Your task to perform on an android device: turn smart compose on in the gmail app Image 0: 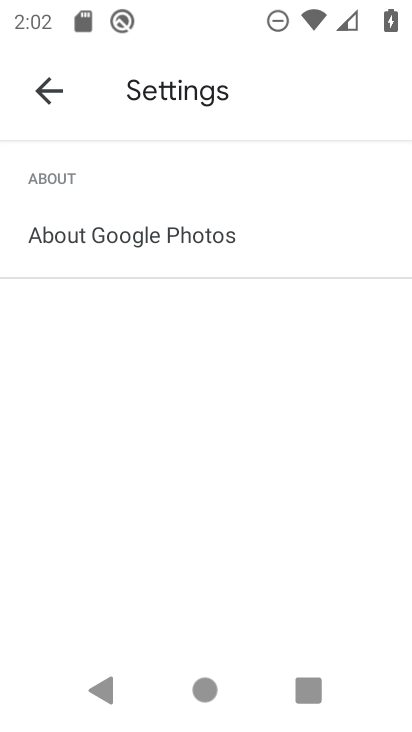
Step 0: press home button
Your task to perform on an android device: turn smart compose on in the gmail app Image 1: 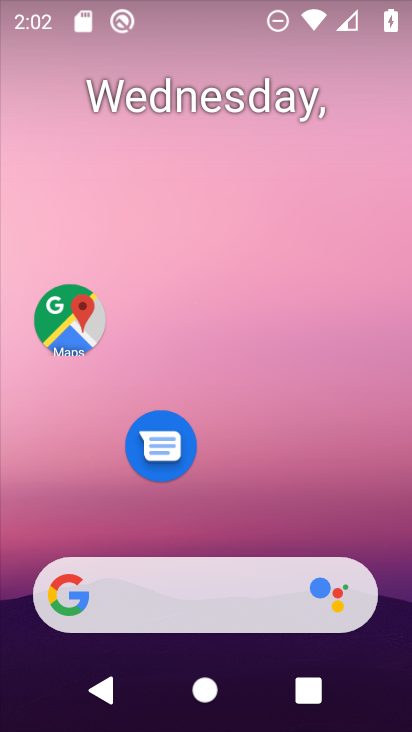
Step 1: drag from (295, 479) to (254, 221)
Your task to perform on an android device: turn smart compose on in the gmail app Image 2: 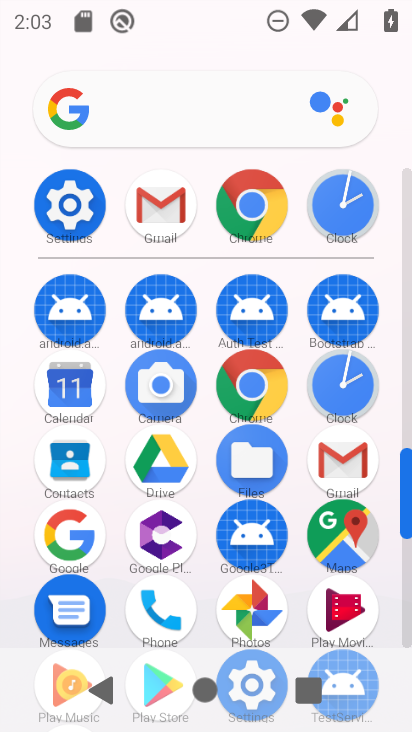
Step 2: click (129, 226)
Your task to perform on an android device: turn smart compose on in the gmail app Image 3: 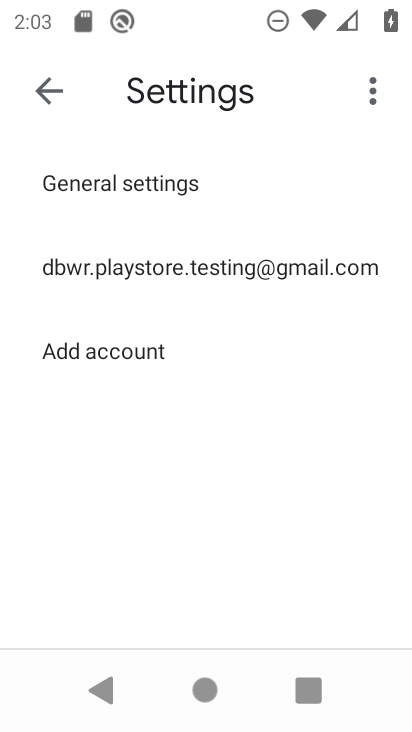
Step 3: click (127, 252)
Your task to perform on an android device: turn smart compose on in the gmail app Image 4: 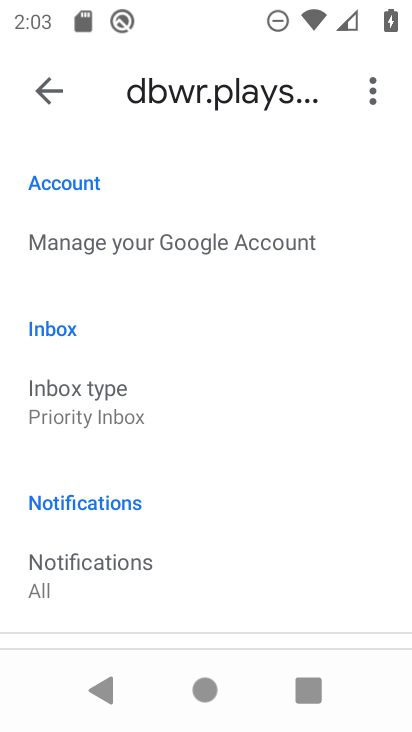
Step 4: drag from (151, 509) to (141, 210)
Your task to perform on an android device: turn smart compose on in the gmail app Image 5: 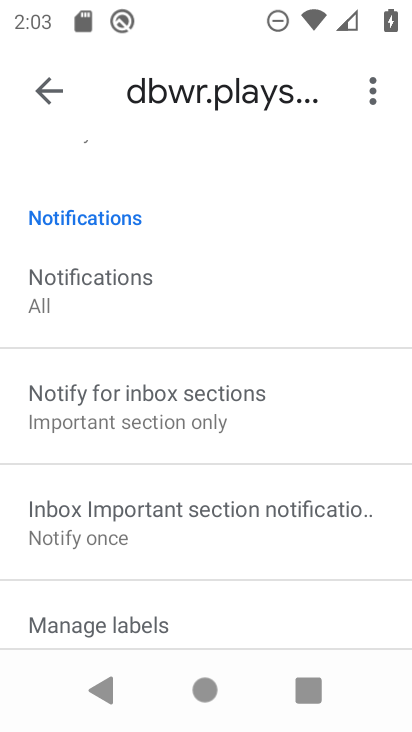
Step 5: drag from (132, 438) to (122, 292)
Your task to perform on an android device: turn smart compose on in the gmail app Image 6: 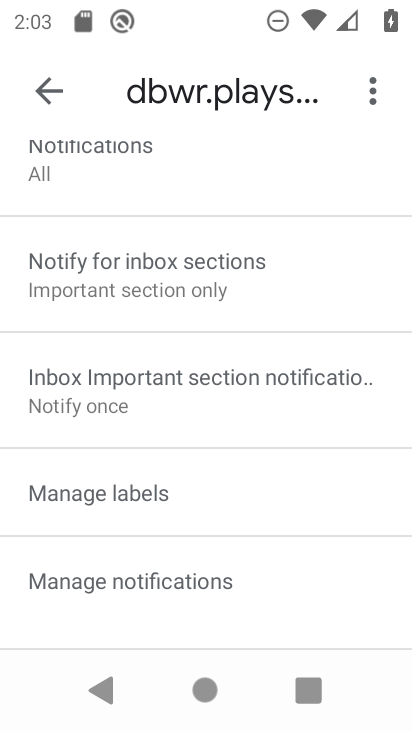
Step 6: drag from (166, 502) to (138, 210)
Your task to perform on an android device: turn smart compose on in the gmail app Image 7: 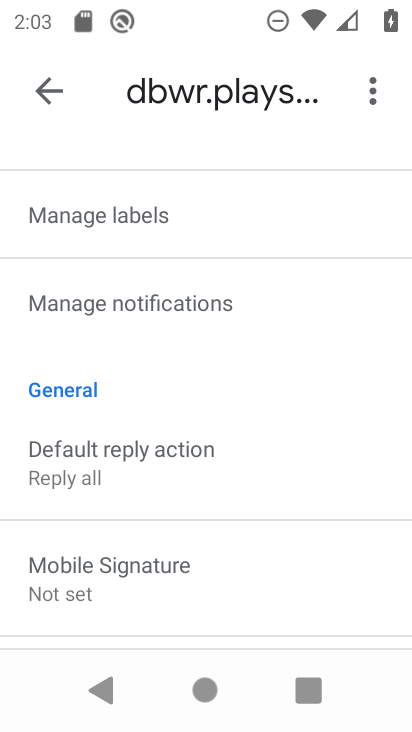
Step 7: drag from (172, 488) to (118, 105)
Your task to perform on an android device: turn smart compose on in the gmail app Image 8: 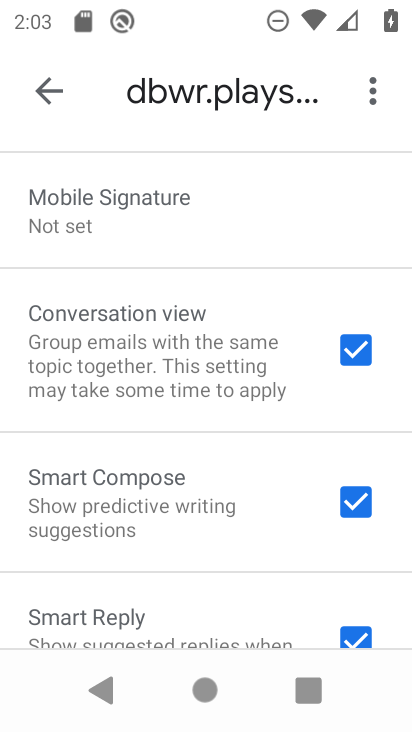
Step 8: drag from (128, 329) to (122, 263)
Your task to perform on an android device: turn smart compose on in the gmail app Image 9: 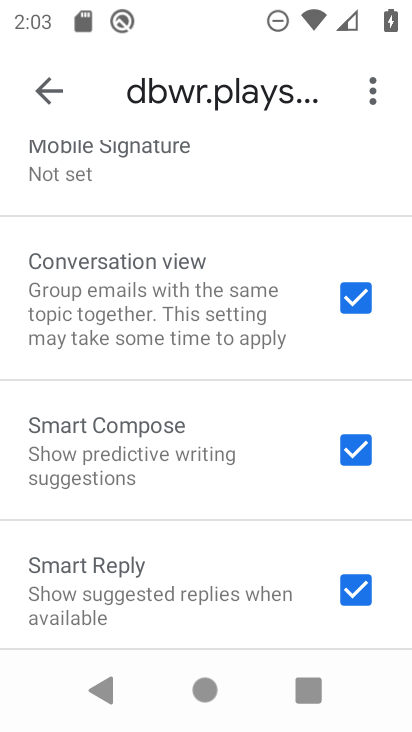
Step 9: click (343, 446)
Your task to perform on an android device: turn smart compose on in the gmail app Image 10: 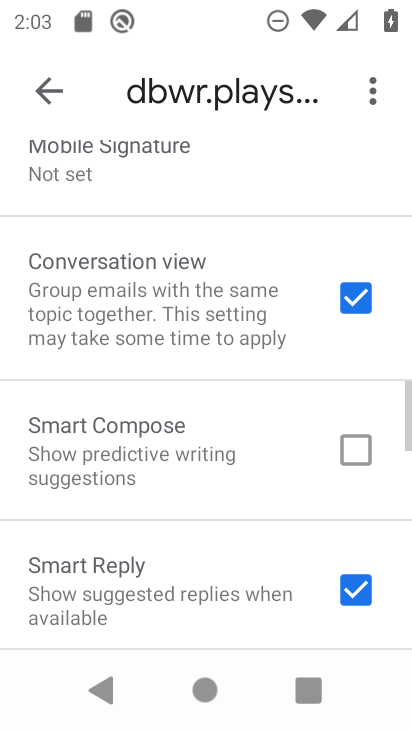
Step 10: task complete